Your task to perform on an android device: What's on my calendar tomorrow? Image 0: 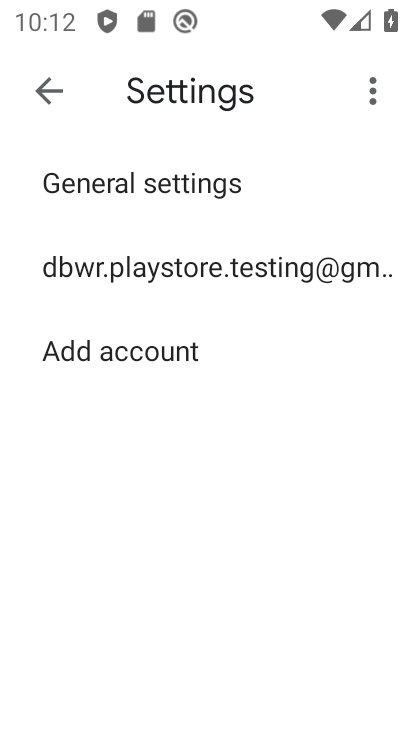
Step 0: press home button
Your task to perform on an android device: What's on my calendar tomorrow? Image 1: 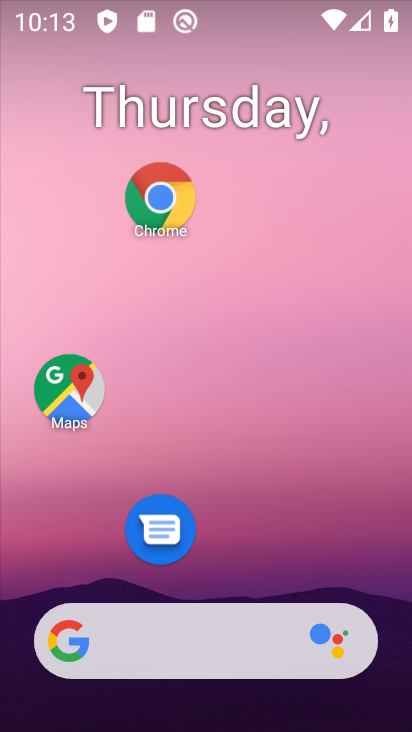
Step 1: drag from (236, 547) to (181, 86)
Your task to perform on an android device: What's on my calendar tomorrow? Image 2: 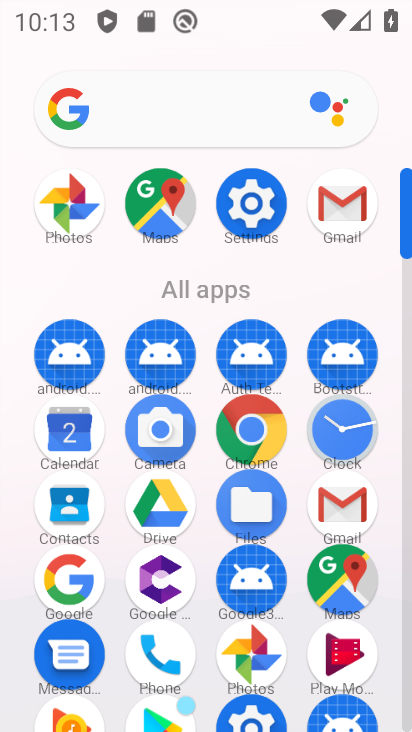
Step 2: click (73, 441)
Your task to perform on an android device: What's on my calendar tomorrow? Image 3: 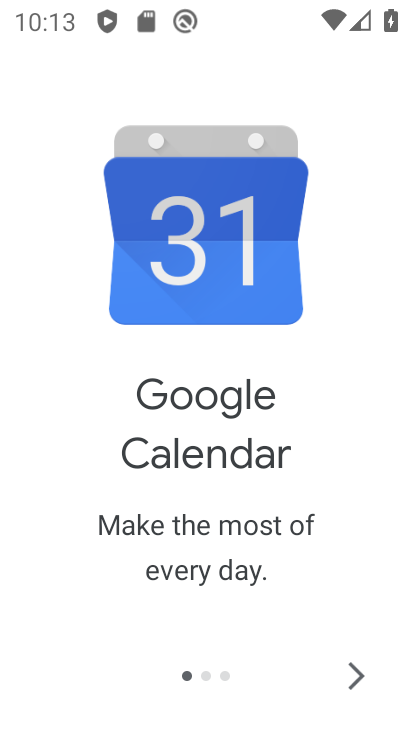
Step 3: click (355, 671)
Your task to perform on an android device: What's on my calendar tomorrow? Image 4: 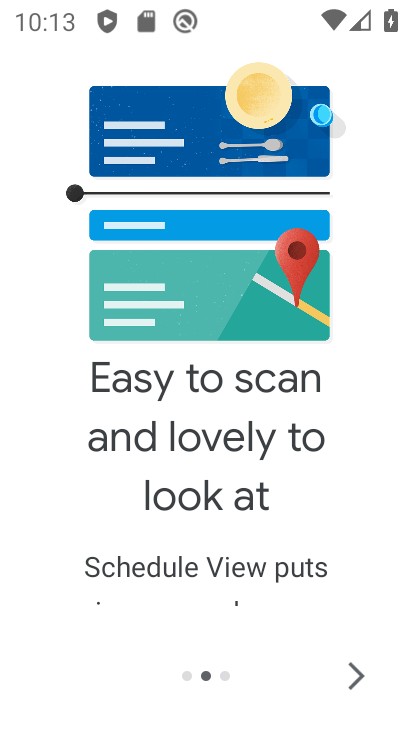
Step 4: click (355, 671)
Your task to perform on an android device: What's on my calendar tomorrow? Image 5: 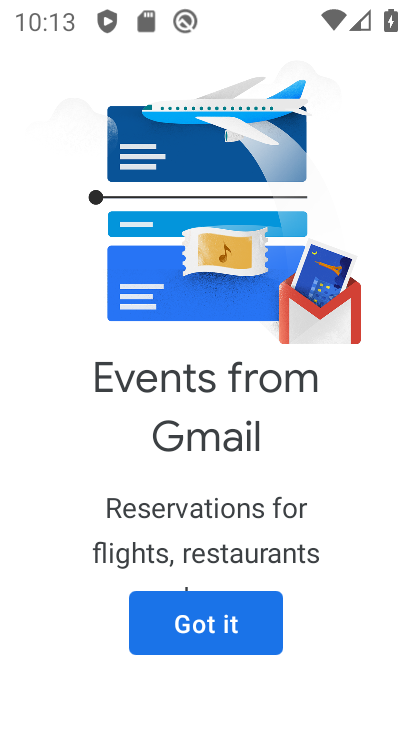
Step 5: click (240, 629)
Your task to perform on an android device: What's on my calendar tomorrow? Image 6: 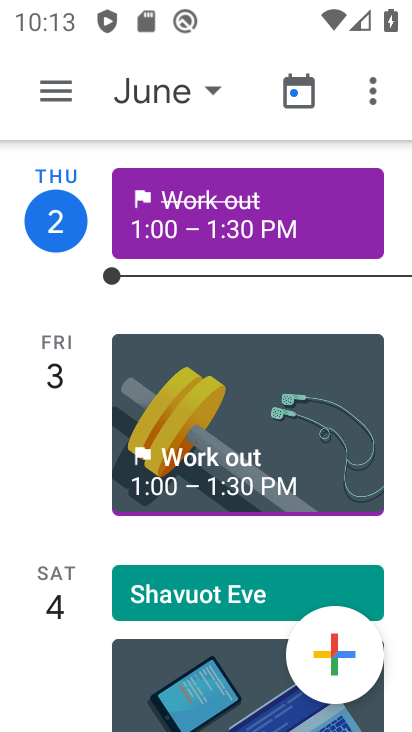
Step 6: click (207, 91)
Your task to perform on an android device: What's on my calendar tomorrow? Image 7: 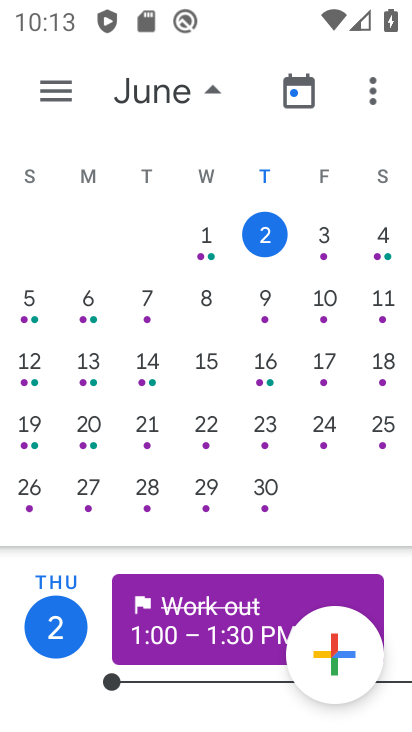
Step 7: click (271, 239)
Your task to perform on an android device: What's on my calendar tomorrow? Image 8: 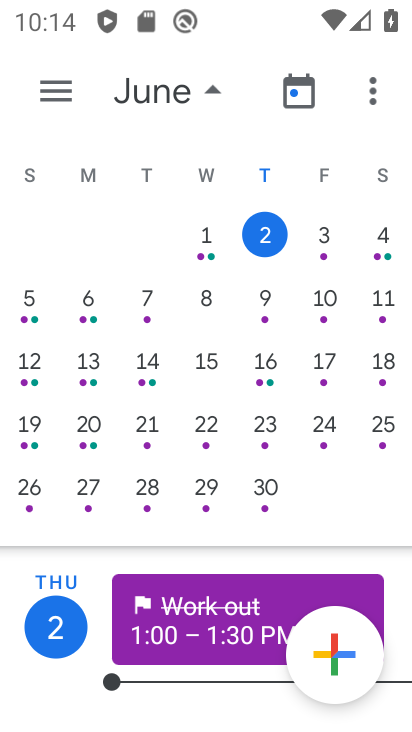
Step 8: drag from (233, 565) to (217, 299)
Your task to perform on an android device: What's on my calendar tomorrow? Image 9: 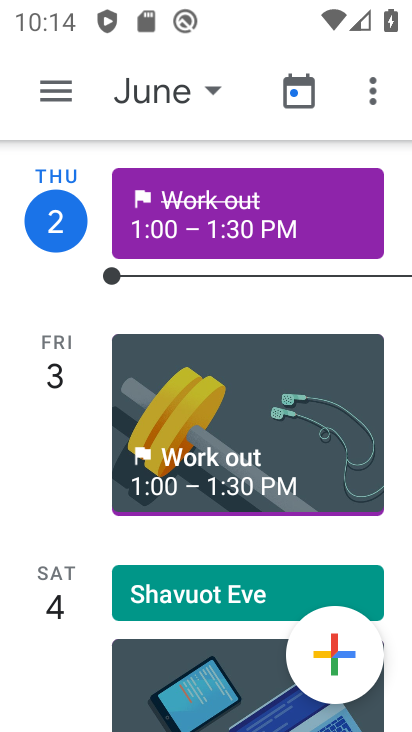
Step 9: click (168, 206)
Your task to perform on an android device: What's on my calendar tomorrow? Image 10: 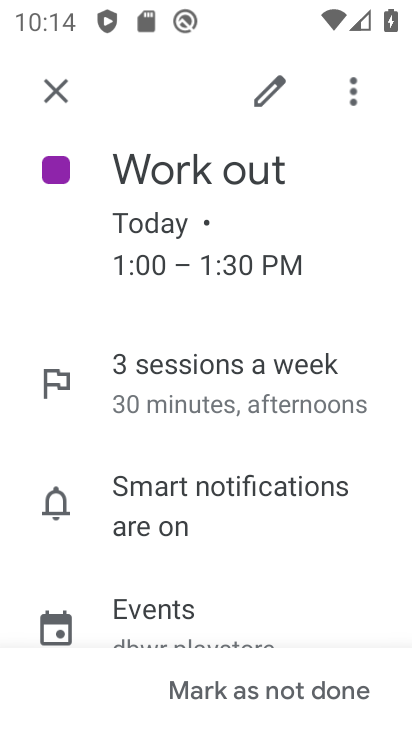
Step 10: click (53, 85)
Your task to perform on an android device: What's on my calendar tomorrow? Image 11: 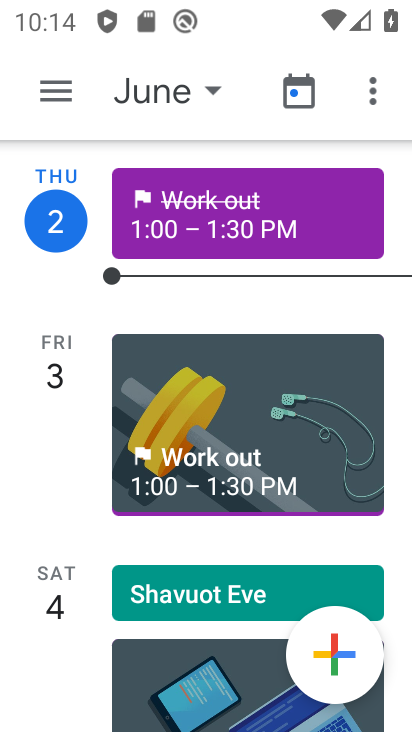
Step 11: click (51, 92)
Your task to perform on an android device: What's on my calendar tomorrow? Image 12: 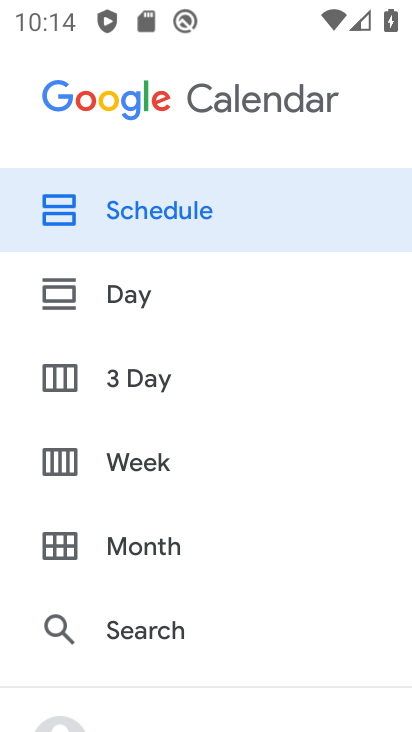
Step 12: click (119, 289)
Your task to perform on an android device: What's on my calendar tomorrow? Image 13: 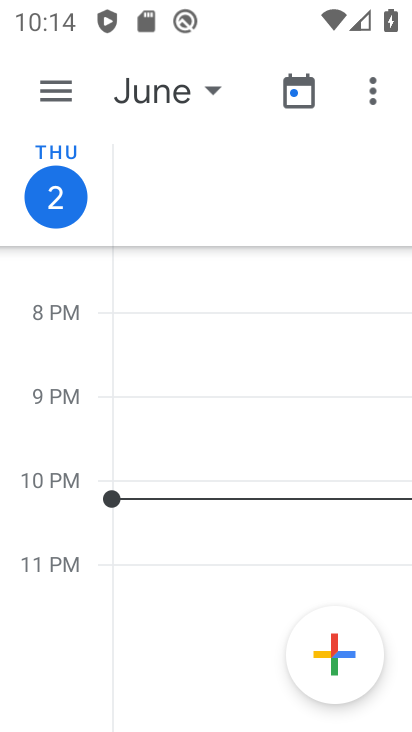
Step 13: task complete